Your task to perform on an android device: Open Maps and search for coffee Image 0: 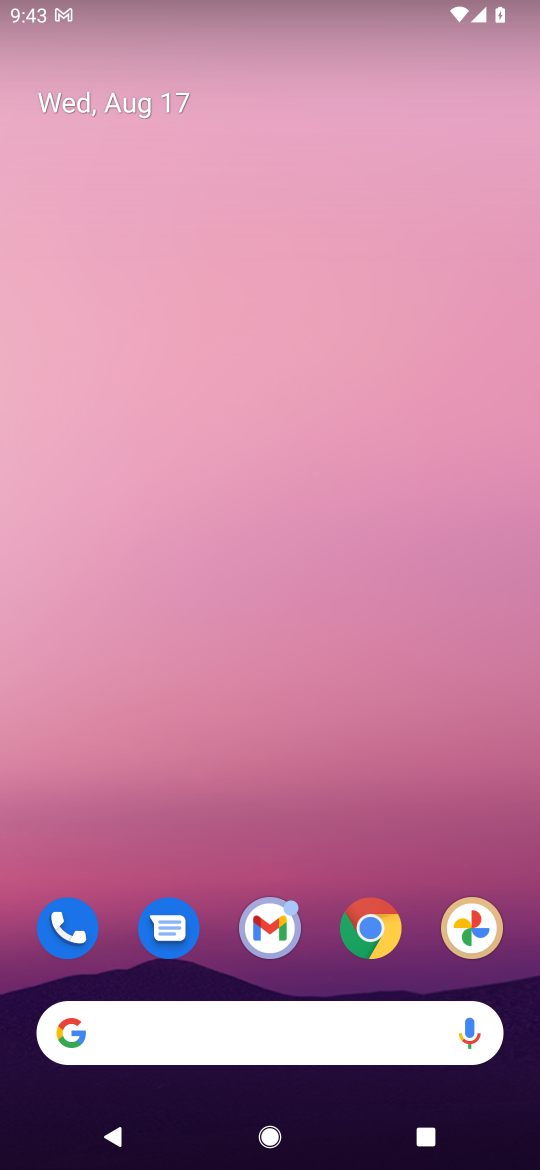
Step 0: drag from (404, 871) to (385, 92)
Your task to perform on an android device: Open Maps and search for coffee Image 1: 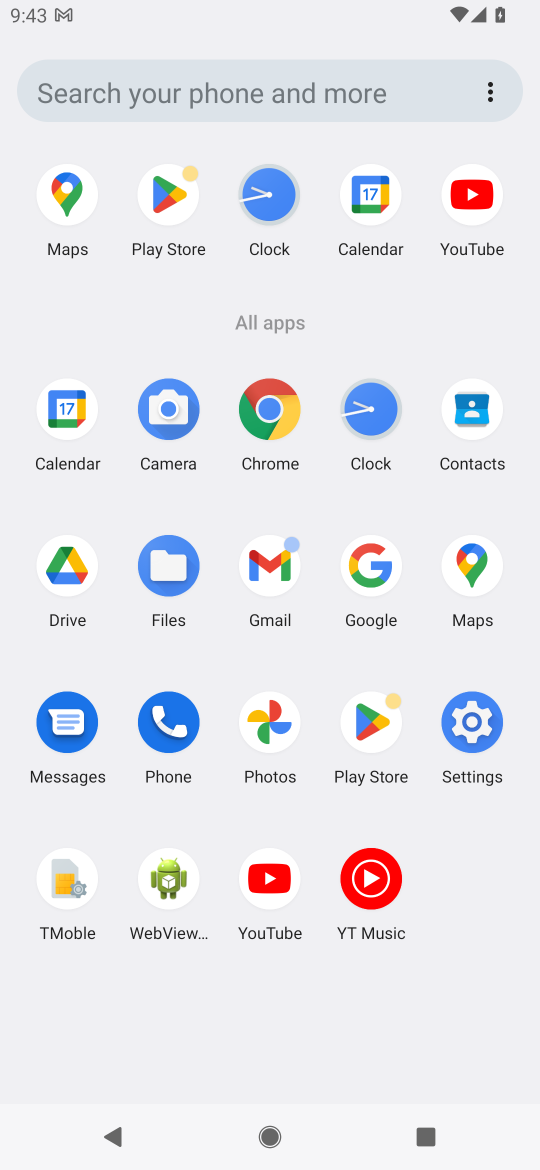
Step 1: click (471, 555)
Your task to perform on an android device: Open Maps and search for coffee Image 2: 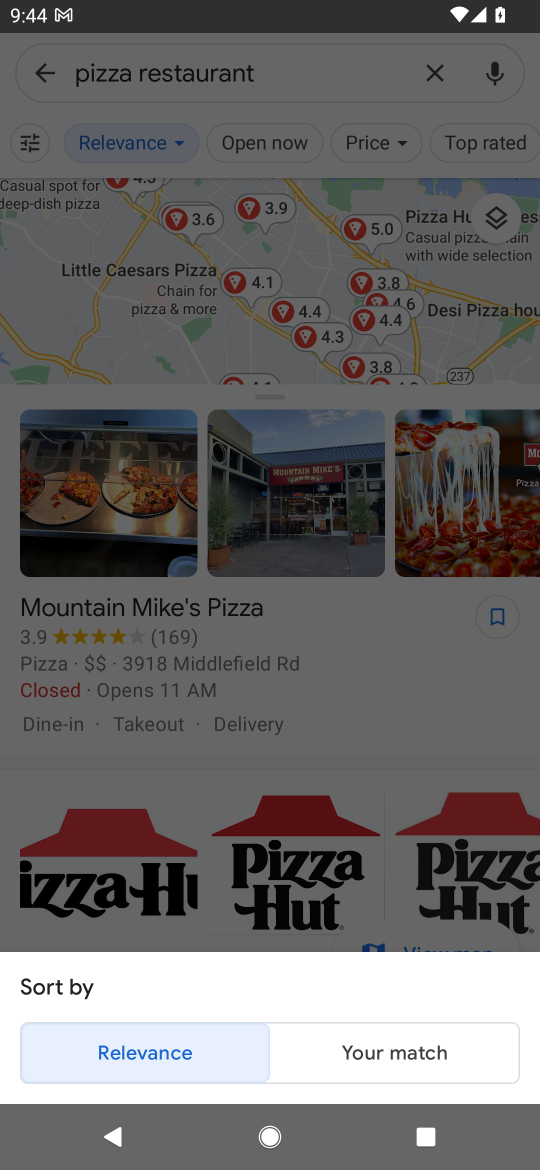
Step 2: click (500, 680)
Your task to perform on an android device: Open Maps and search for coffee Image 3: 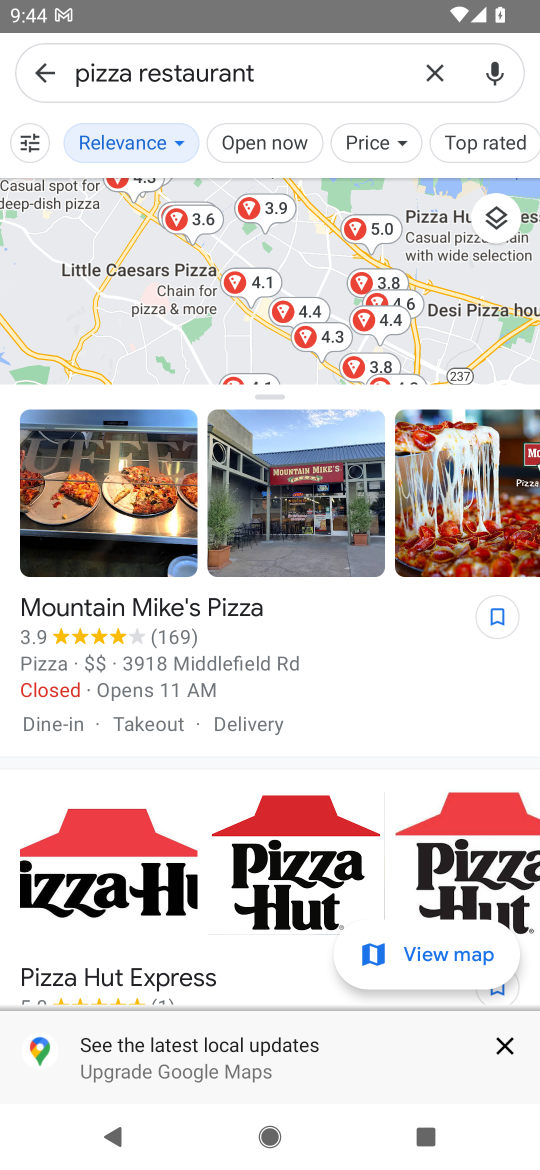
Step 3: click (439, 70)
Your task to perform on an android device: Open Maps and search for coffee Image 4: 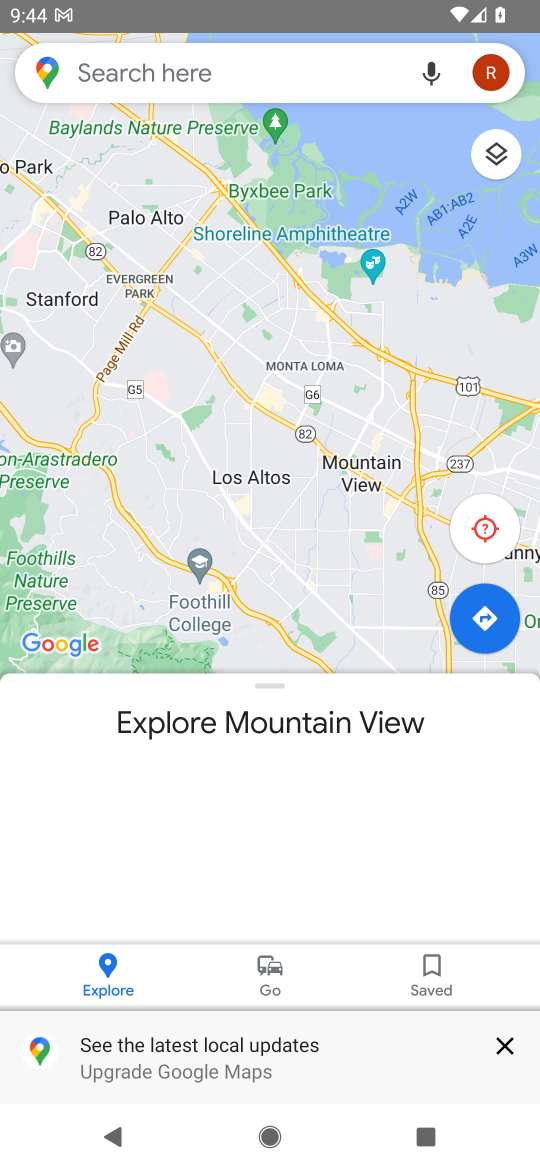
Step 4: click (327, 80)
Your task to perform on an android device: Open Maps and search for coffee Image 5: 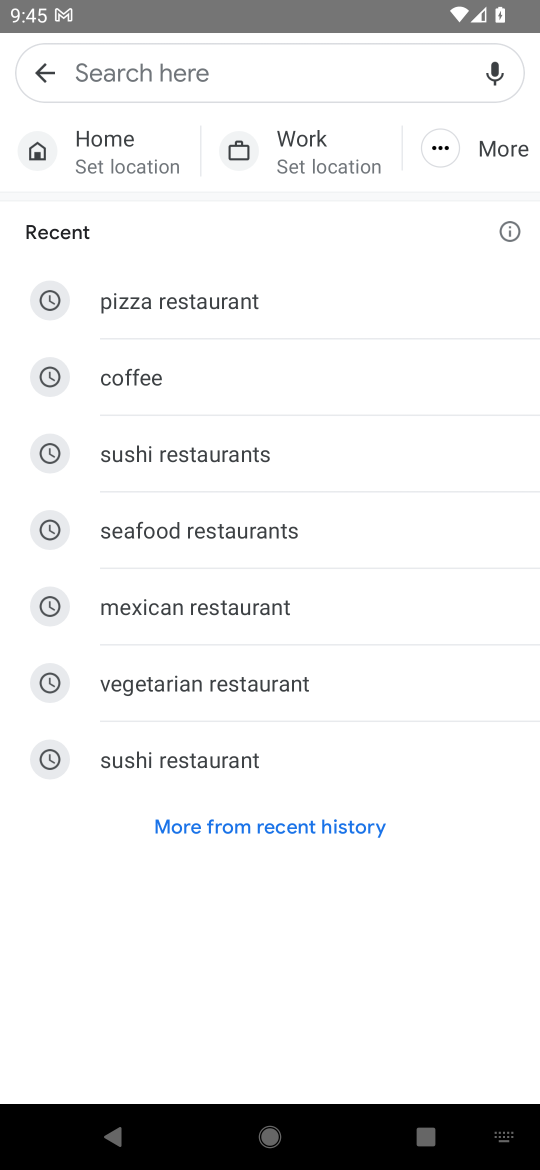
Step 5: click (188, 365)
Your task to perform on an android device: Open Maps and search for coffee Image 6: 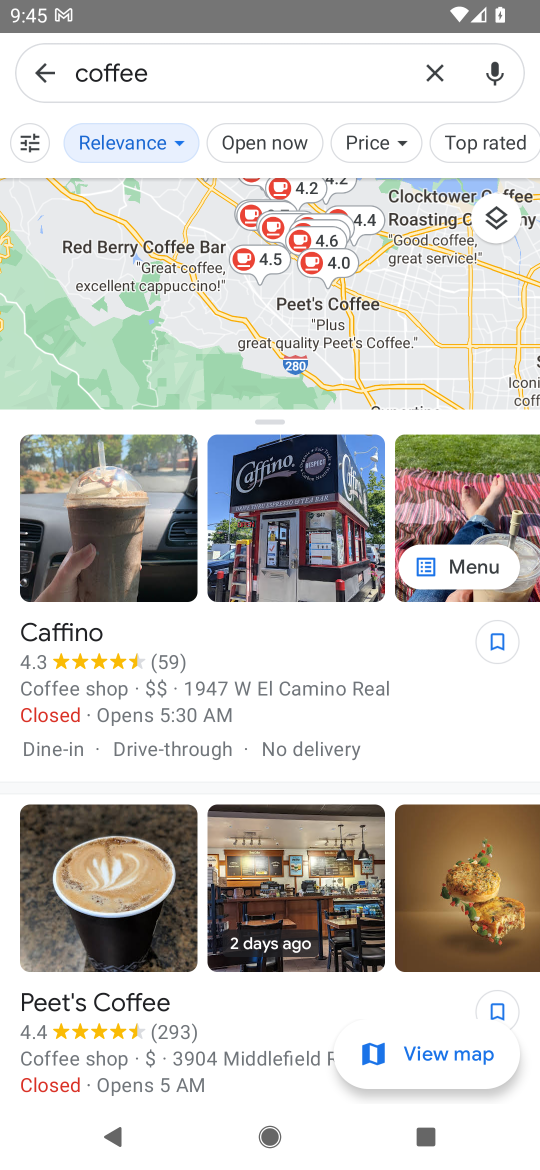
Step 6: task complete